Your task to perform on an android device: install app "Chime – Mobile Banking" Image 0: 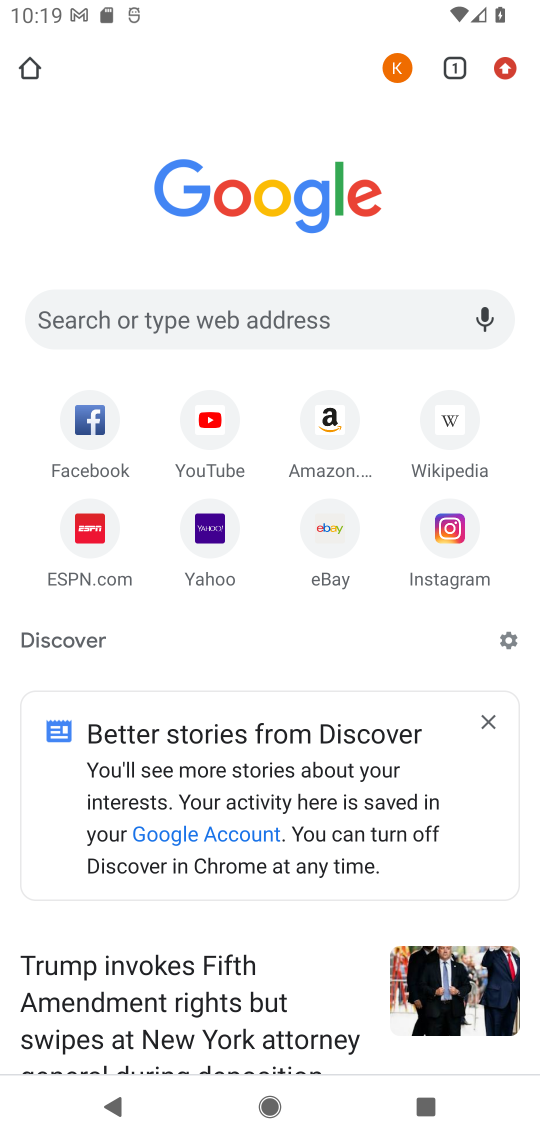
Step 0: press home button
Your task to perform on an android device: install app "Chime – Mobile Banking" Image 1: 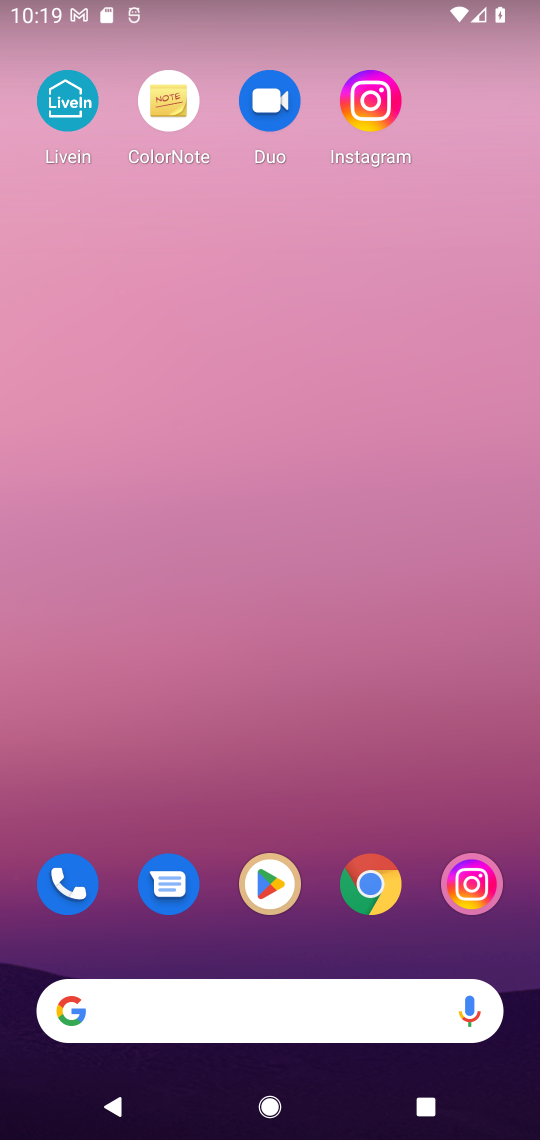
Step 1: click (252, 894)
Your task to perform on an android device: install app "Chime – Mobile Banking" Image 2: 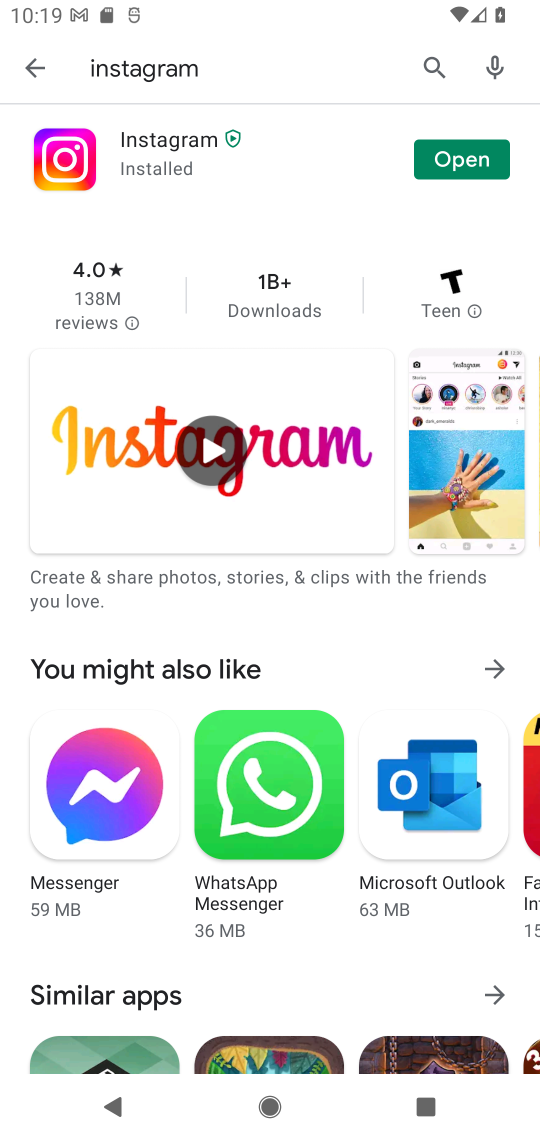
Step 2: click (436, 68)
Your task to perform on an android device: install app "Chime – Mobile Banking" Image 3: 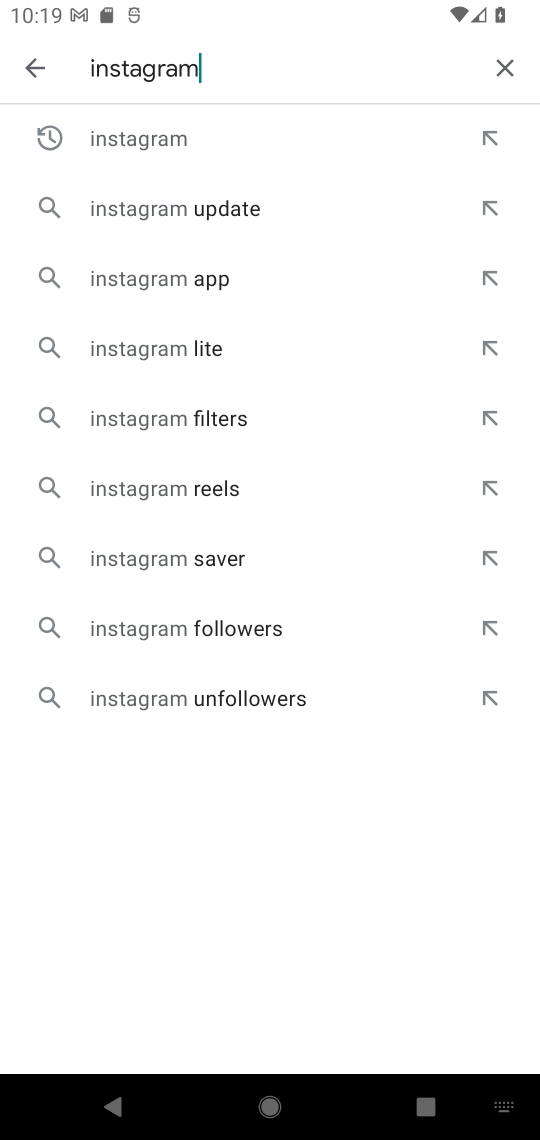
Step 3: click (485, 69)
Your task to perform on an android device: install app "Chime – Mobile Banking" Image 4: 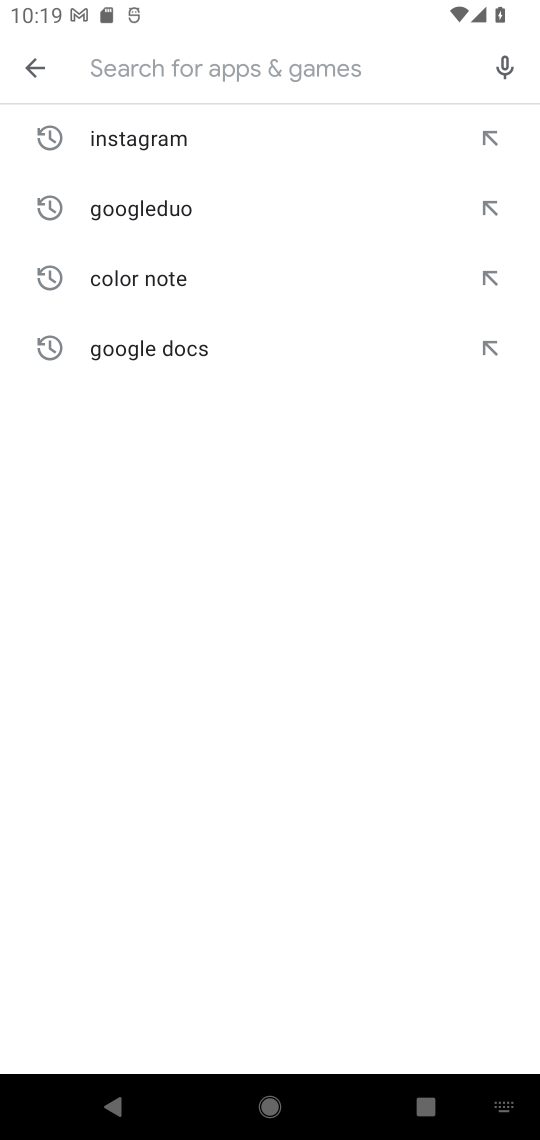
Step 4: type "chime"
Your task to perform on an android device: install app "Chime – Mobile Banking" Image 5: 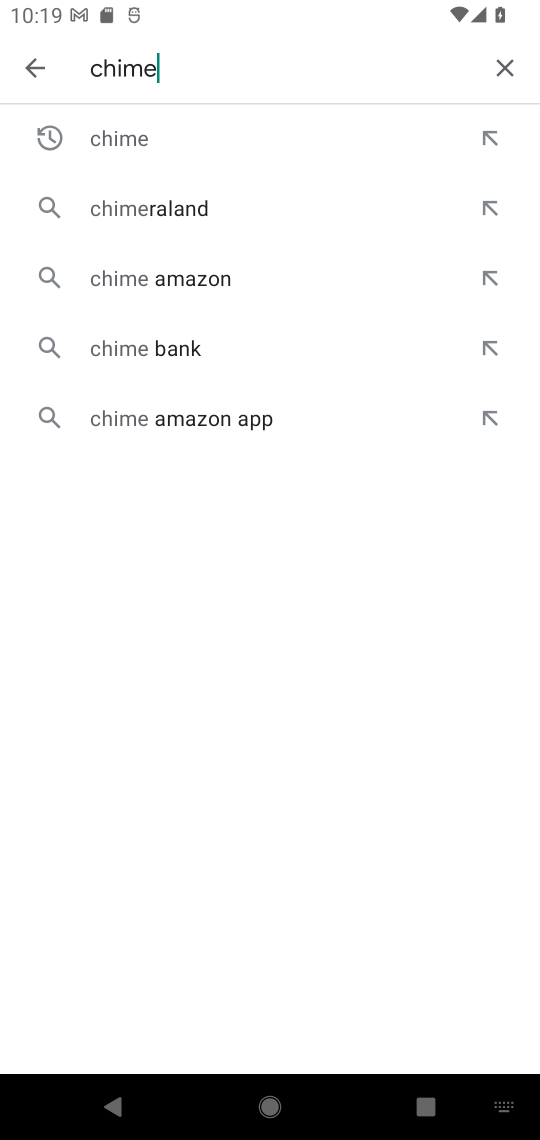
Step 5: click (97, 131)
Your task to perform on an android device: install app "Chime – Mobile Banking" Image 6: 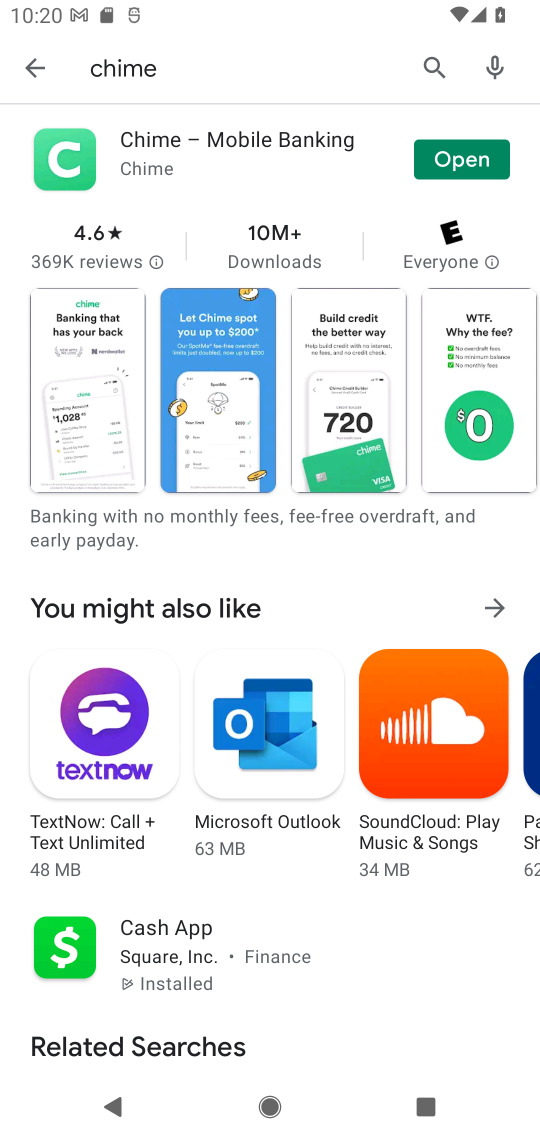
Step 6: click (463, 161)
Your task to perform on an android device: install app "Chime – Mobile Banking" Image 7: 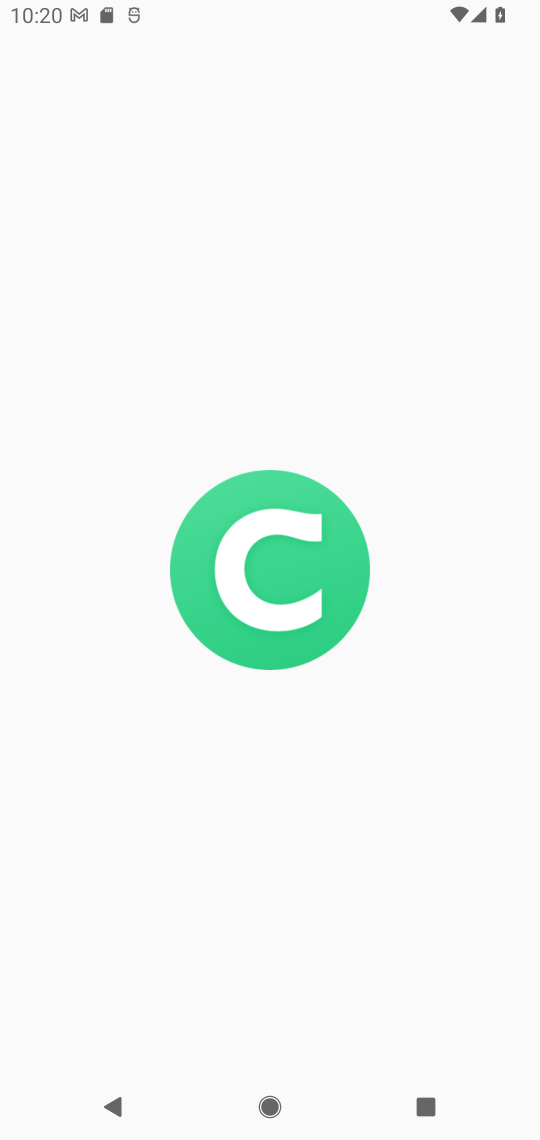
Step 7: task complete